Your task to perform on an android device: stop showing notifications on the lock screen Image 0: 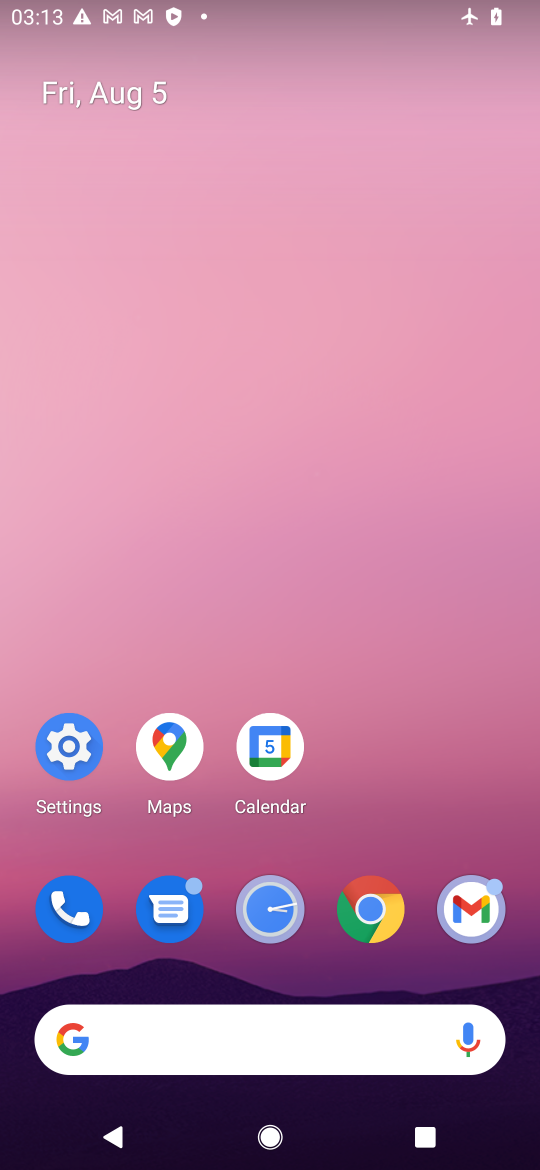
Step 0: click (67, 745)
Your task to perform on an android device: stop showing notifications on the lock screen Image 1: 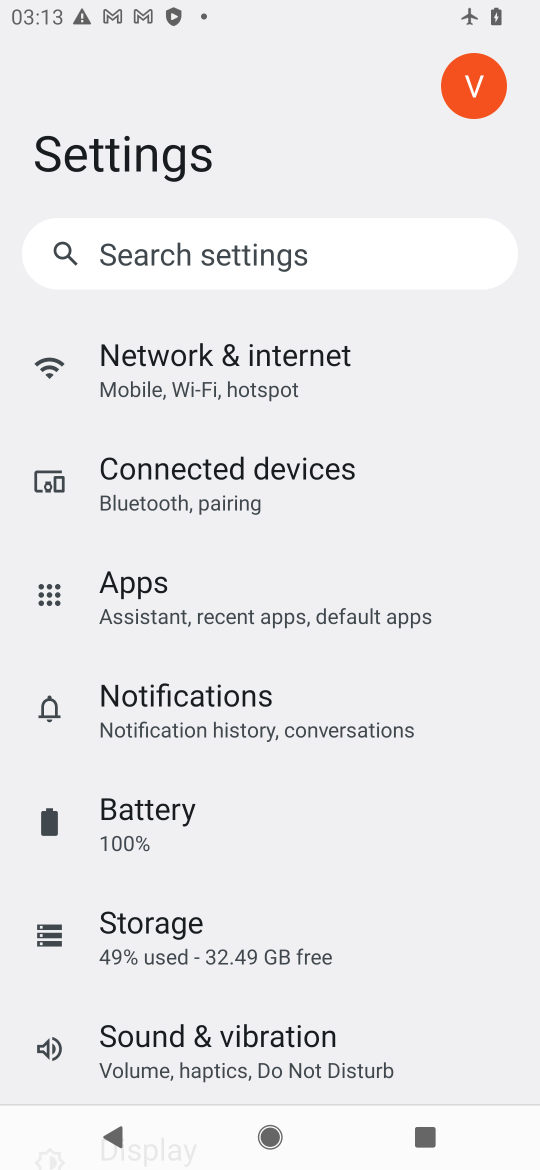
Step 1: click (206, 692)
Your task to perform on an android device: stop showing notifications on the lock screen Image 2: 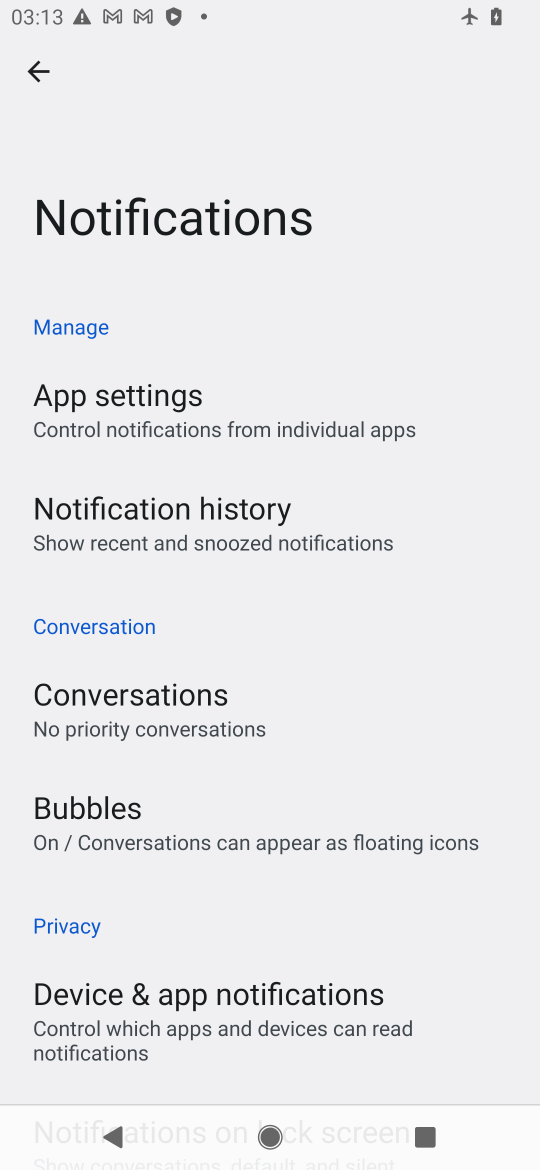
Step 2: click (229, 1007)
Your task to perform on an android device: stop showing notifications on the lock screen Image 3: 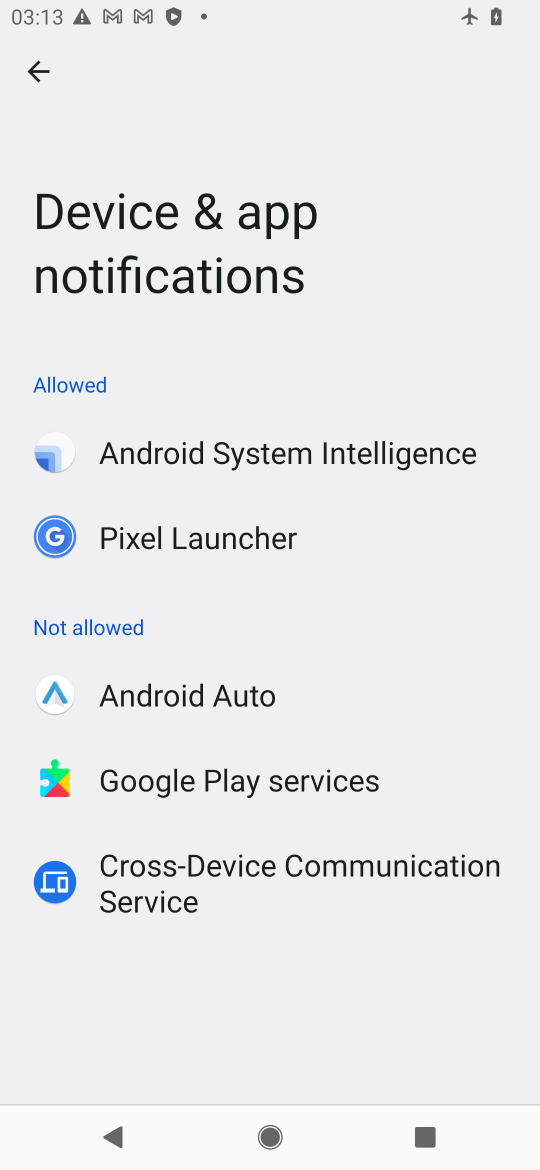
Step 3: click (41, 74)
Your task to perform on an android device: stop showing notifications on the lock screen Image 4: 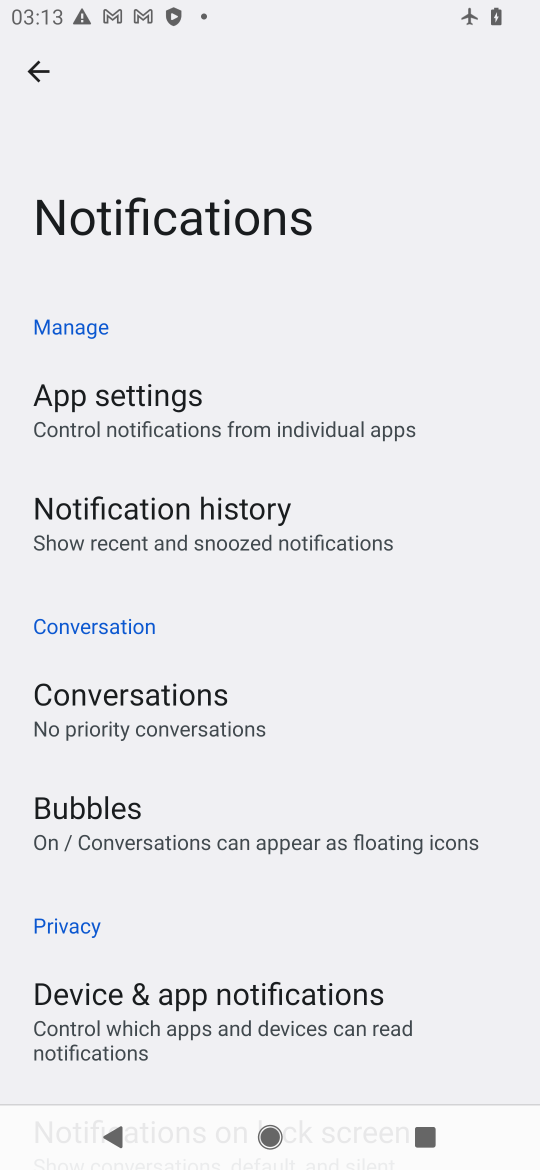
Step 4: drag from (359, 829) to (345, 225)
Your task to perform on an android device: stop showing notifications on the lock screen Image 5: 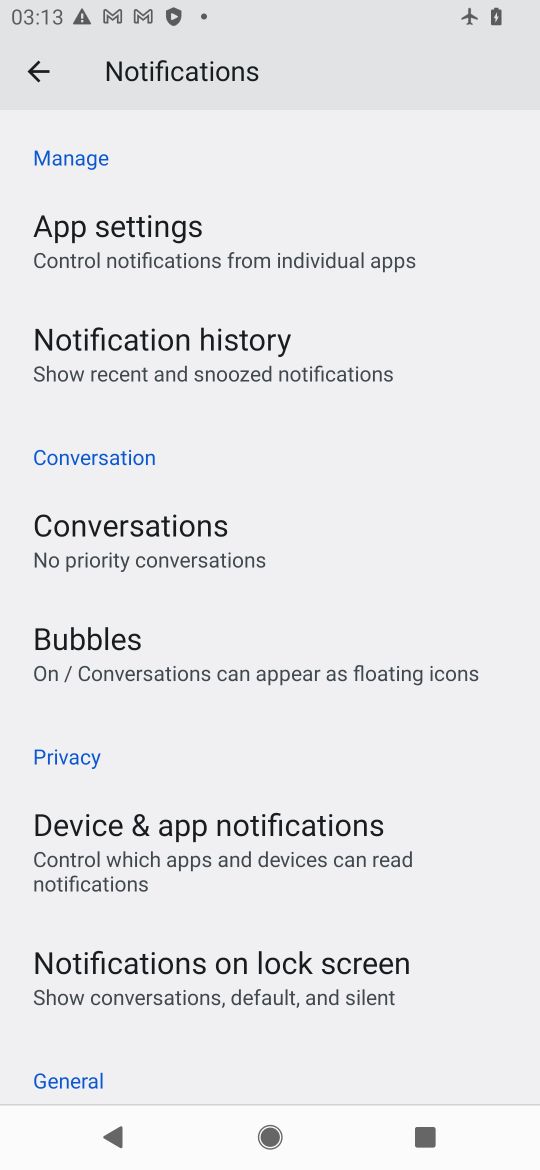
Step 5: click (283, 962)
Your task to perform on an android device: stop showing notifications on the lock screen Image 6: 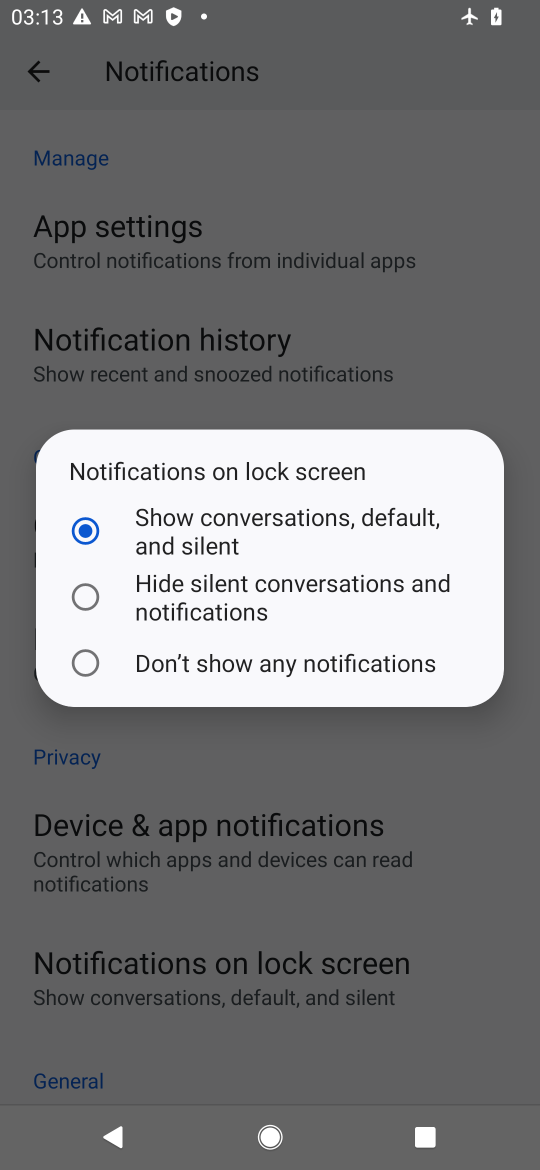
Step 6: click (77, 657)
Your task to perform on an android device: stop showing notifications on the lock screen Image 7: 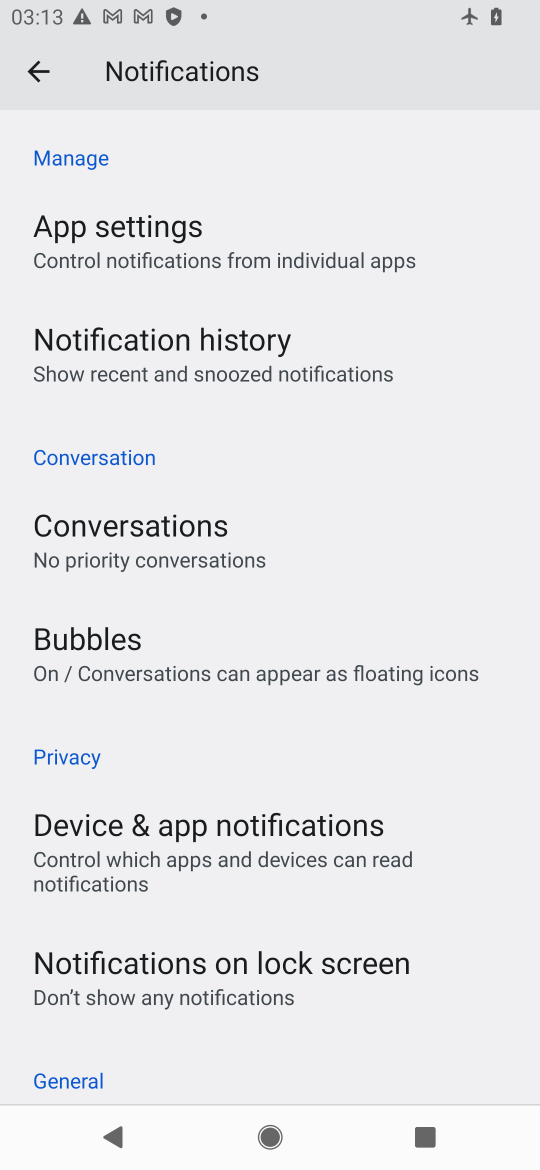
Step 7: task complete